Your task to perform on an android device: turn off notifications settings in the gmail app Image 0: 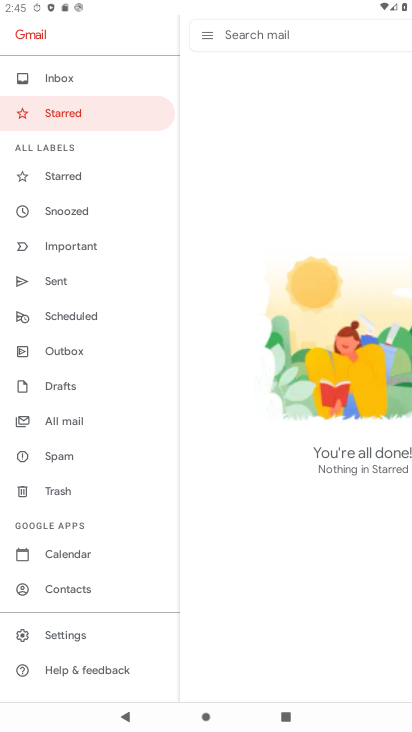
Step 0: click (70, 634)
Your task to perform on an android device: turn off notifications settings in the gmail app Image 1: 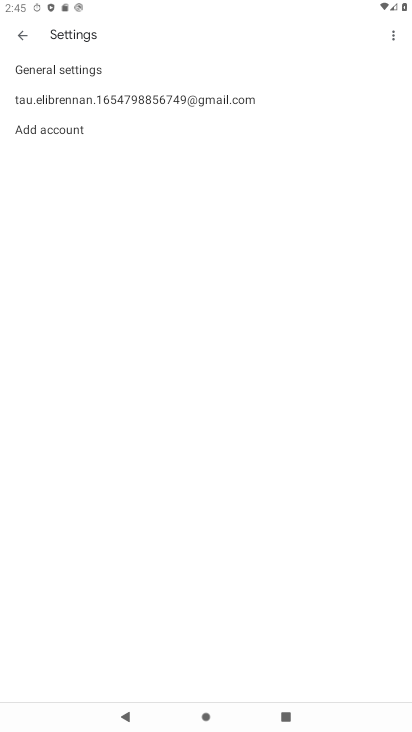
Step 1: click (62, 72)
Your task to perform on an android device: turn off notifications settings in the gmail app Image 2: 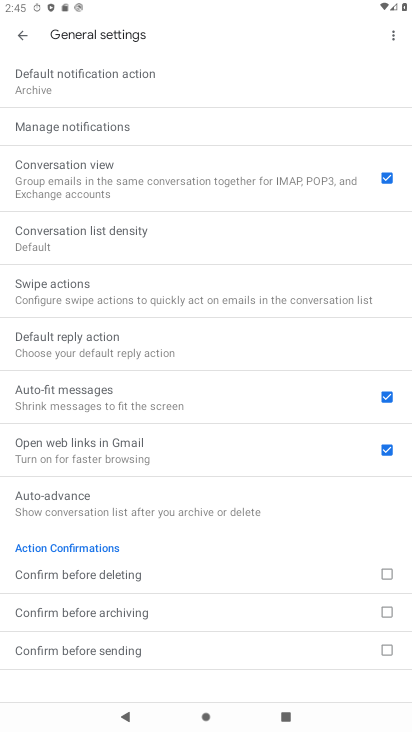
Step 2: click (100, 121)
Your task to perform on an android device: turn off notifications settings in the gmail app Image 3: 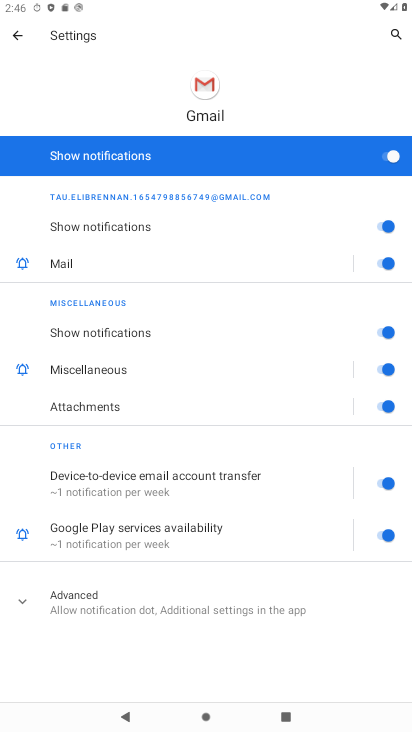
Step 3: click (353, 151)
Your task to perform on an android device: turn off notifications settings in the gmail app Image 4: 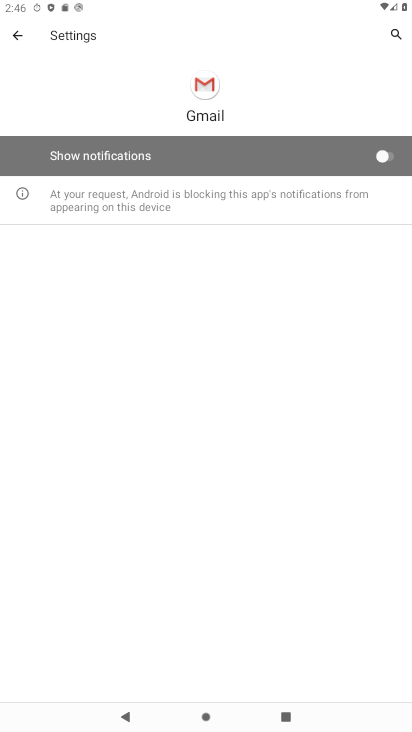
Step 4: task complete